Your task to perform on an android device: Go to calendar. Show me events next week Image 0: 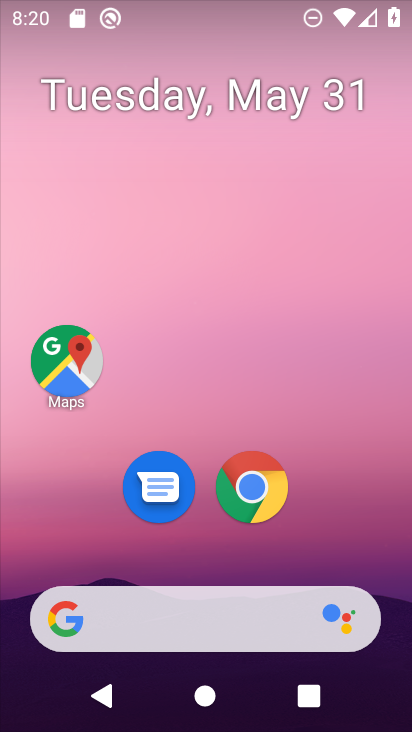
Step 0: drag from (161, 723) to (232, 116)
Your task to perform on an android device: Go to calendar. Show me events next week Image 1: 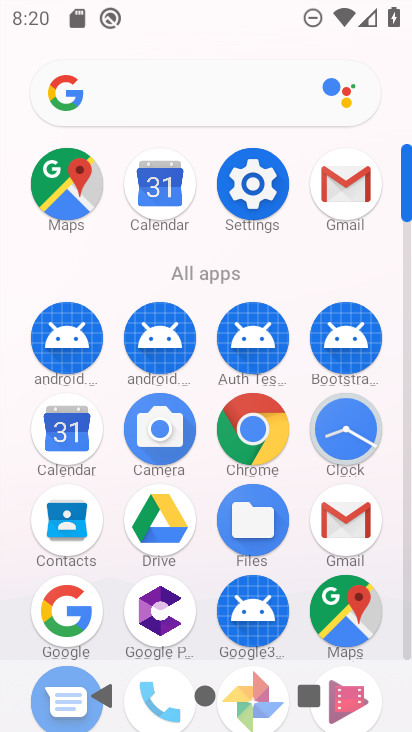
Step 1: click (145, 198)
Your task to perform on an android device: Go to calendar. Show me events next week Image 2: 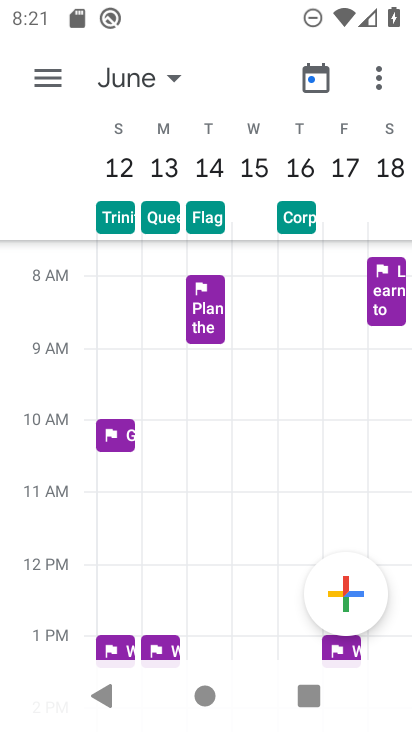
Step 2: click (47, 73)
Your task to perform on an android device: Go to calendar. Show me events next week Image 3: 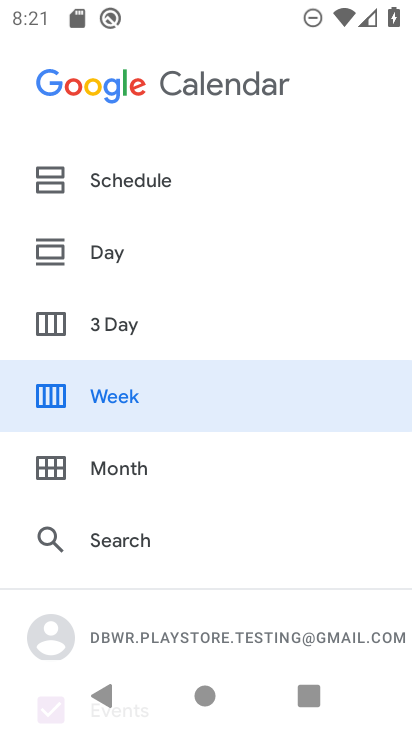
Step 3: drag from (285, 566) to (294, 182)
Your task to perform on an android device: Go to calendar. Show me events next week Image 4: 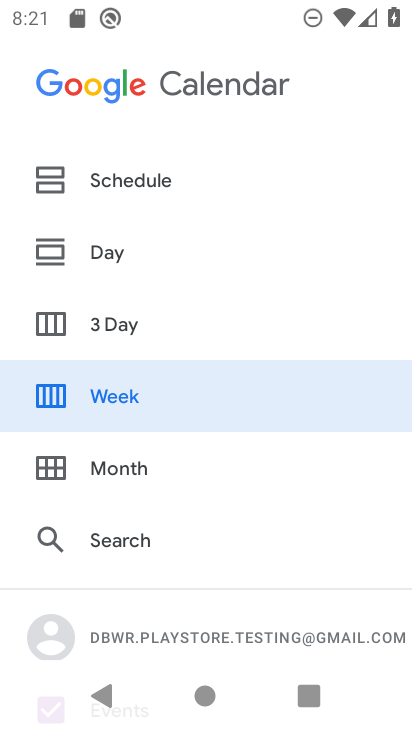
Step 4: drag from (213, 597) to (212, 192)
Your task to perform on an android device: Go to calendar. Show me events next week Image 5: 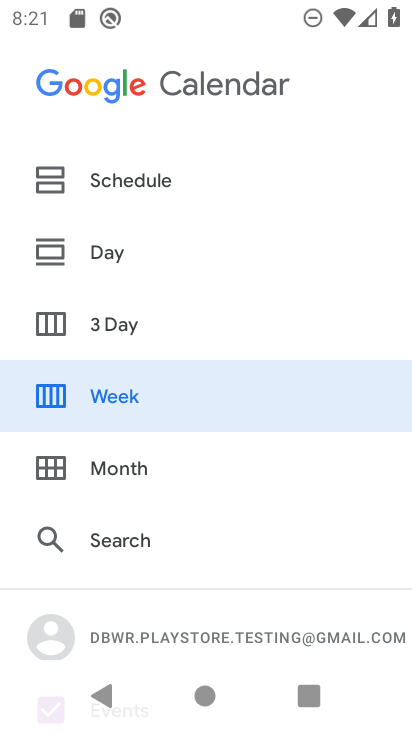
Step 5: drag from (193, 603) to (228, 199)
Your task to perform on an android device: Go to calendar. Show me events next week Image 6: 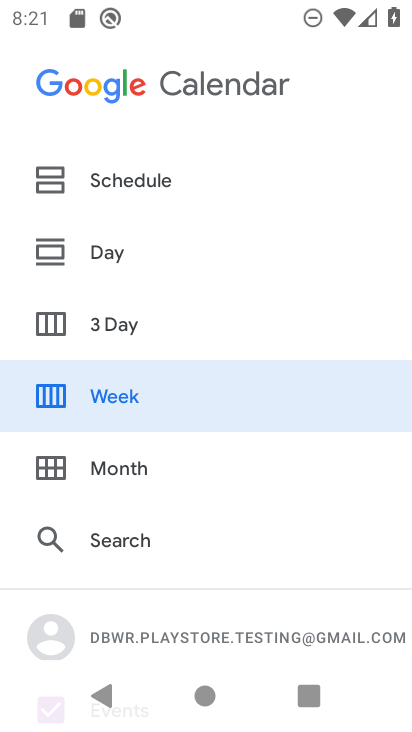
Step 6: drag from (243, 585) to (171, 96)
Your task to perform on an android device: Go to calendar. Show me events next week Image 7: 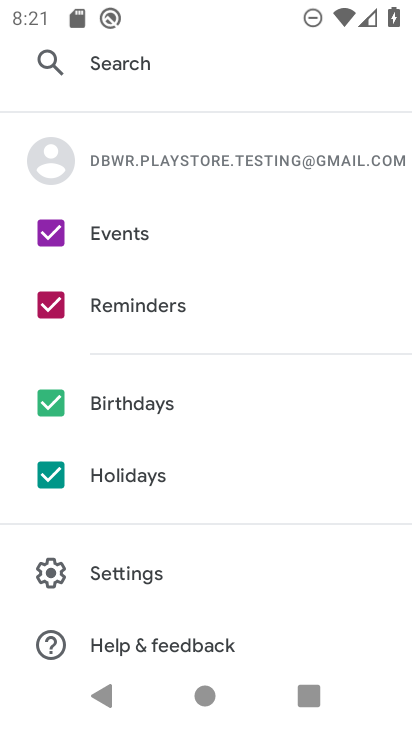
Step 7: click (40, 304)
Your task to perform on an android device: Go to calendar. Show me events next week Image 8: 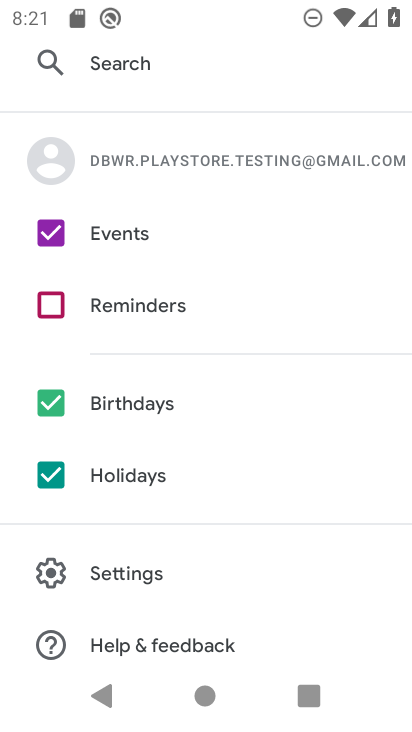
Step 8: click (50, 402)
Your task to perform on an android device: Go to calendar. Show me events next week Image 9: 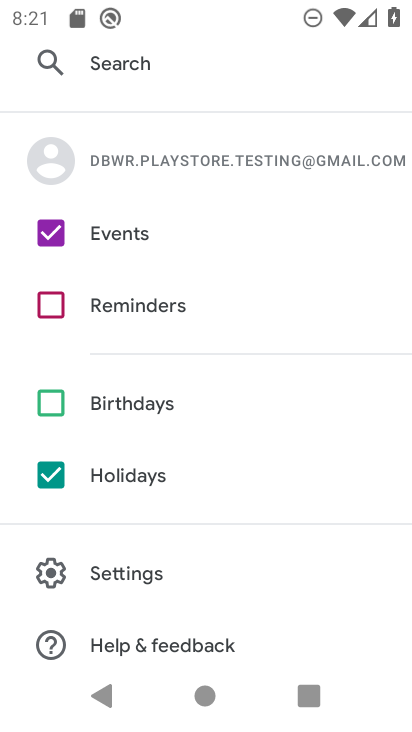
Step 9: click (49, 469)
Your task to perform on an android device: Go to calendar. Show me events next week Image 10: 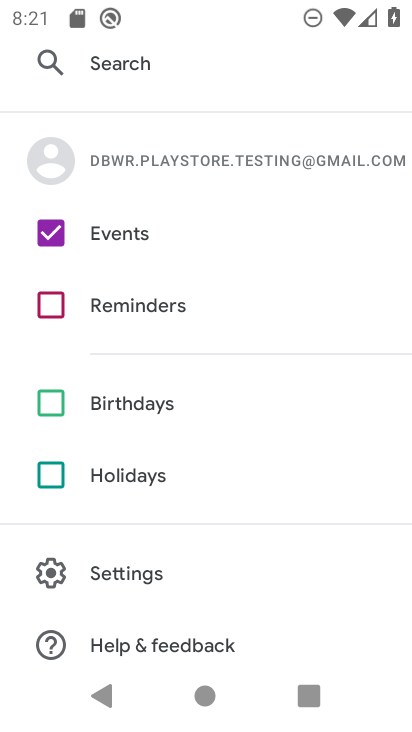
Step 10: drag from (292, 142) to (388, 708)
Your task to perform on an android device: Go to calendar. Show me events next week Image 11: 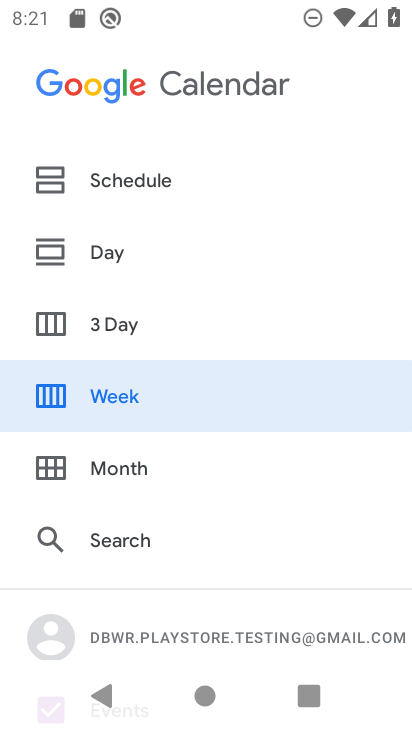
Step 11: click (390, 166)
Your task to perform on an android device: Go to calendar. Show me events next week Image 12: 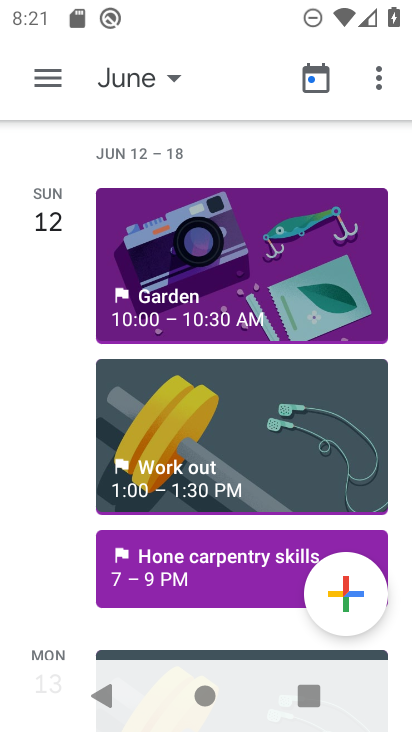
Step 12: click (37, 81)
Your task to perform on an android device: Go to calendar. Show me events next week Image 13: 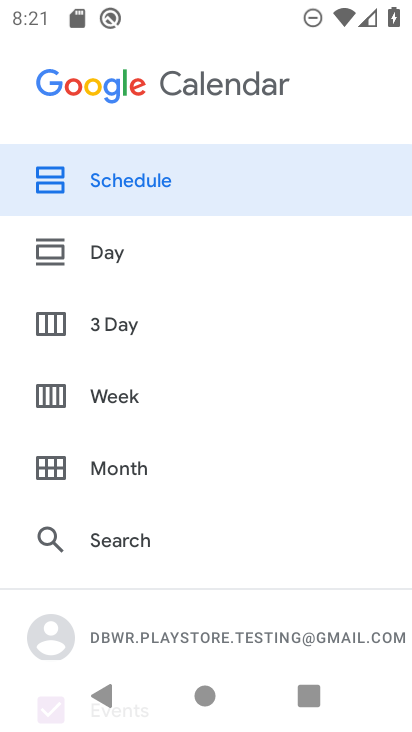
Step 13: click (82, 386)
Your task to perform on an android device: Go to calendar. Show me events next week Image 14: 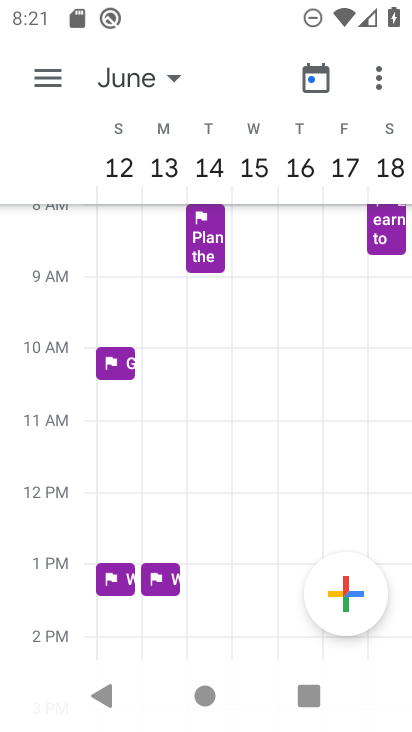
Step 14: task complete